Your task to perform on an android device: Open calendar and show me the second week of next month Image 0: 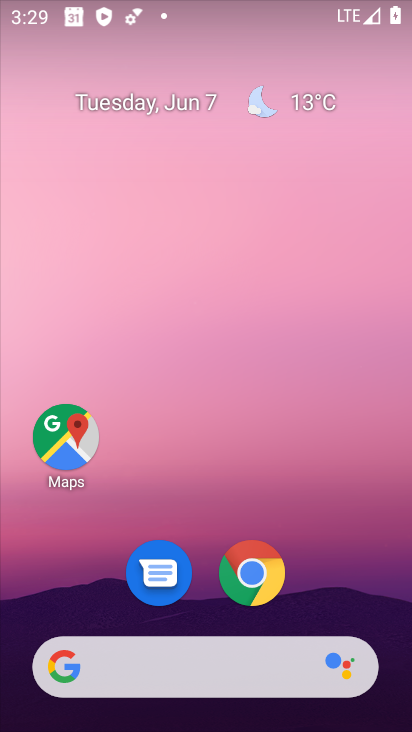
Step 0: drag from (348, 596) to (267, 178)
Your task to perform on an android device: Open calendar and show me the second week of next month Image 1: 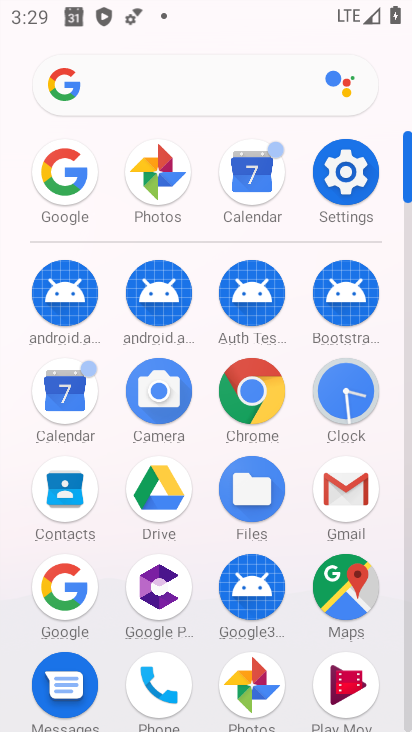
Step 1: click (68, 403)
Your task to perform on an android device: Open calendar and show me the second week of next month Image 2: 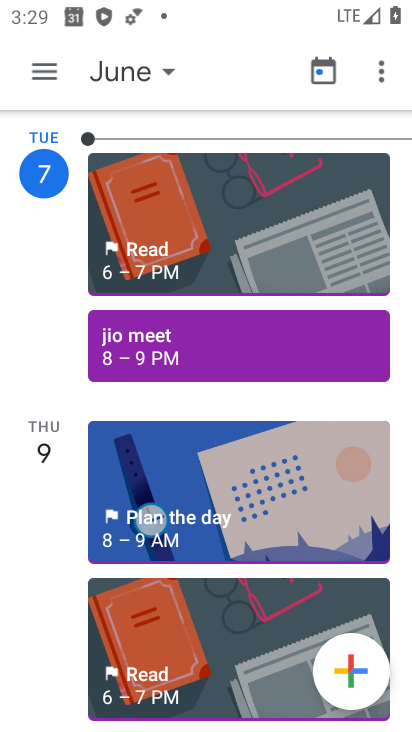
Step 2: click (50, 78)
Your task to perform on an android device: Open calendar and show me the second week of next month Image 3: 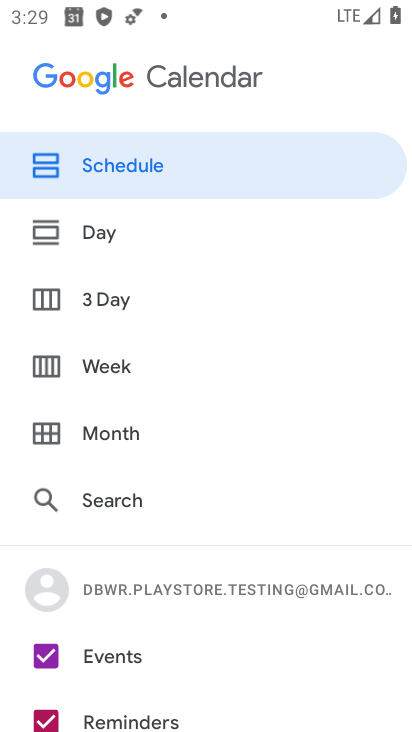
Step 3: click (109, 370)
Your task to perform on an android device: Open calendar and show me the second week of next month Image 4: 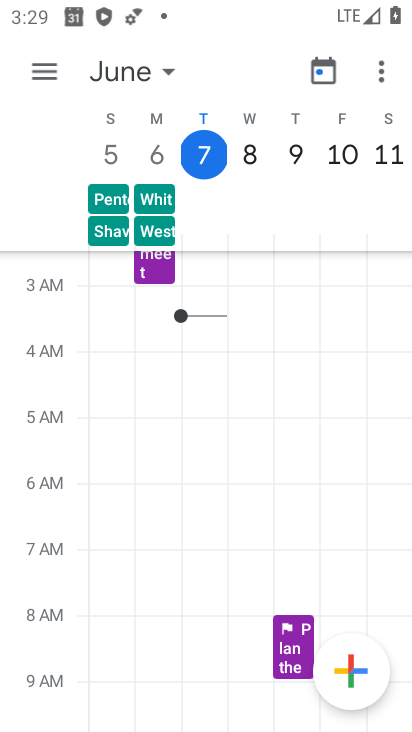
Step 4: click (165, 72)
Your task to perform on an android device: Open calendar and show me the second week of next month Image 5: 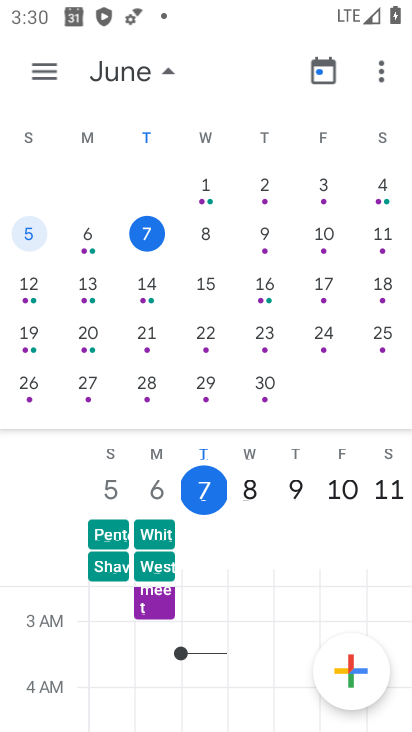
Step 5: drag from (385, 264) to (0, 209)
Your task to perform on an android device: Open calendar and show me the second week of next month Image 6: 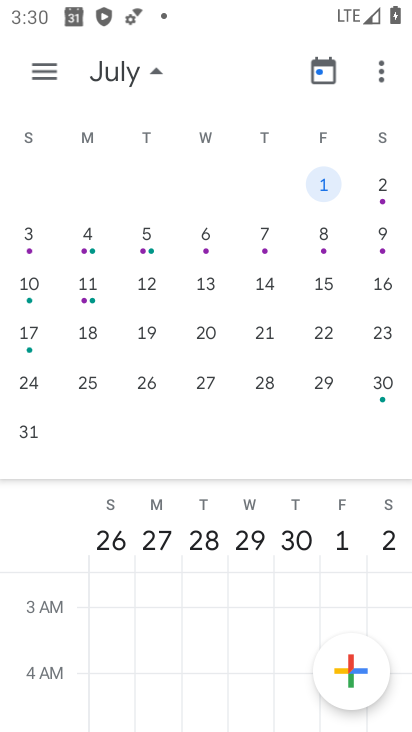
Step 6: click (141, 281)
Your task to perform on an android device: Open calendar and show me the second week of next month Image 7: 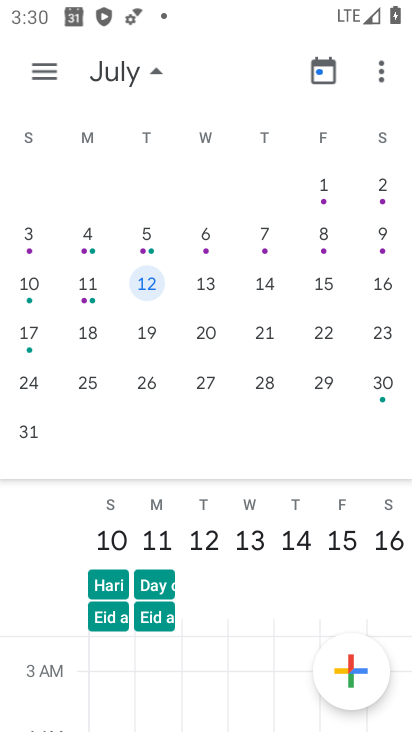
Step 7: task complete